Your task to perform on an android device: snooze an email in the gmail app Image 0: 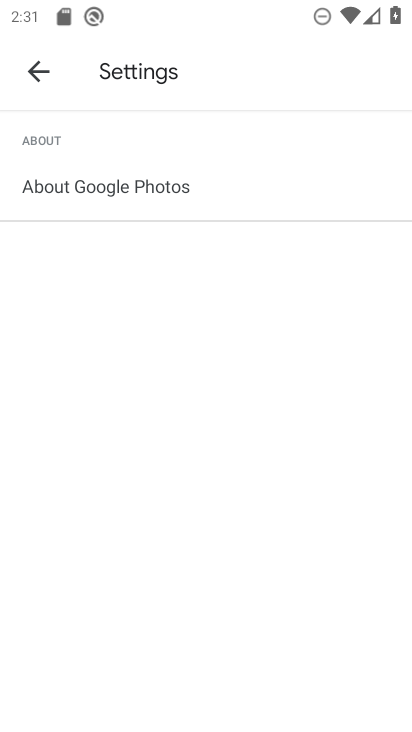
Step 0: press home button
Your task to perform on an android device: snooze an email in the gmail app Image 1: 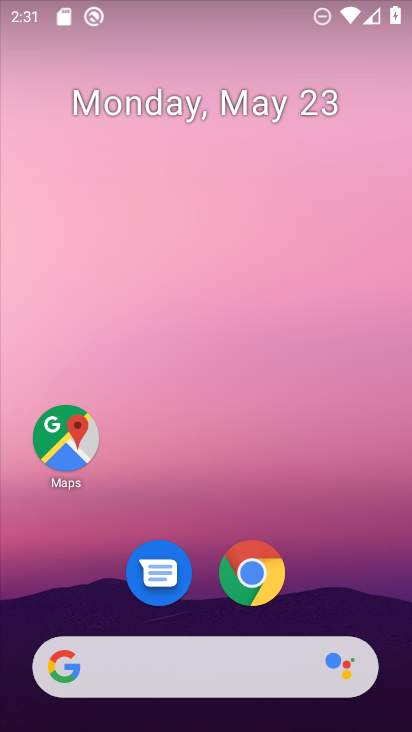
Step 1: drag from (322, 581) to (323, 130)
Your task to perform on an android device: snooze an email in the gmail app Image 2: 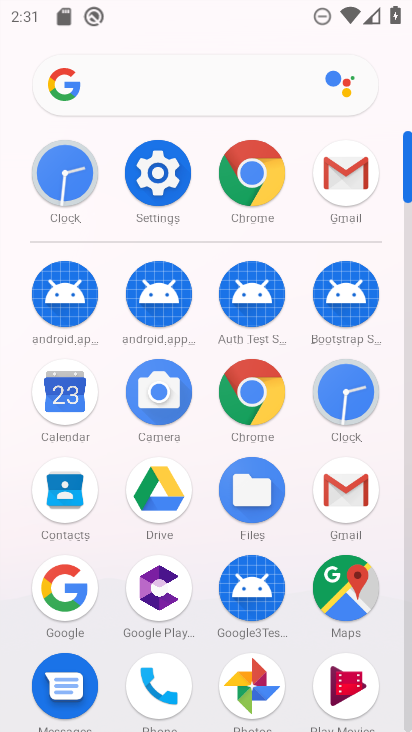
Step 2: click (337, 189)
Your task to perform on an android device: snooze an email in the gmail app Image 3: 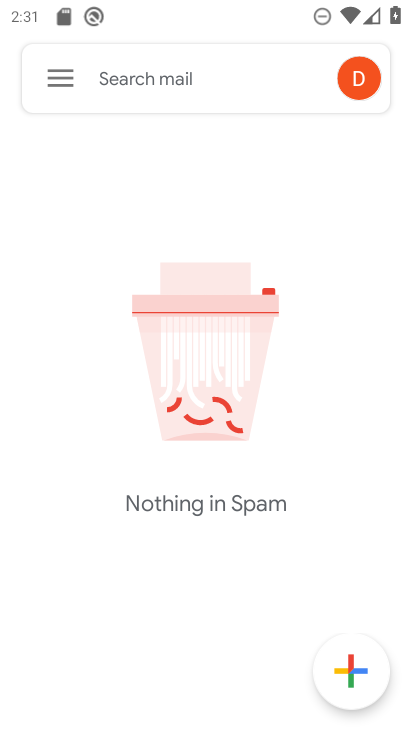
Step 3: click (72, 76)
Your task to perform on an android device: snooze an email in the gmail app Image 4: 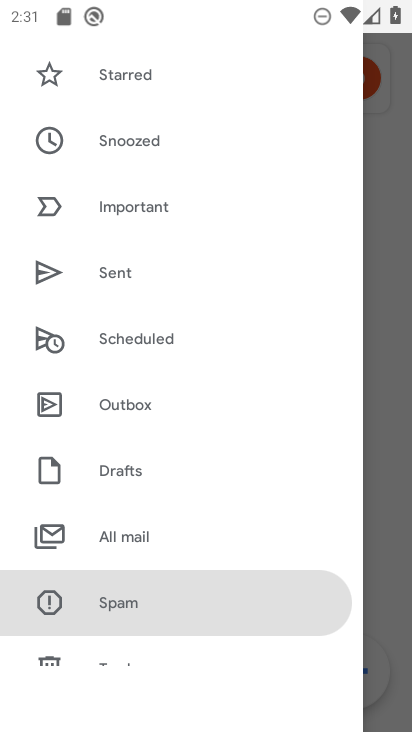
Step 4: drag from (115, 352) to (125, 673)
Your task to perform on an android device: snooze an email in the gmail app Image 5: 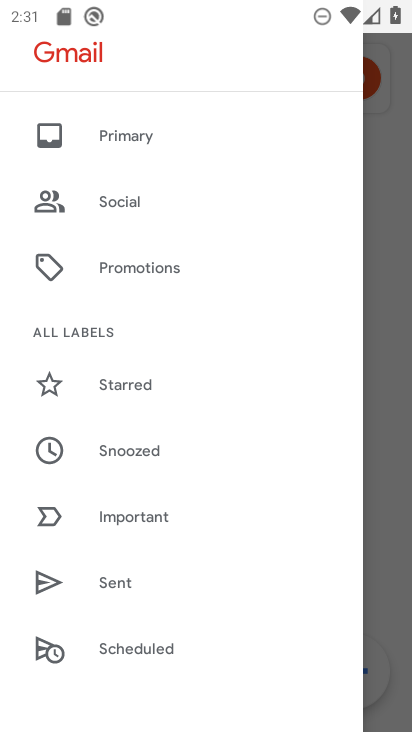
Step 5: drag from (113, 523) to (237, 227)
Your task to perform on an android device: snooze an email in the gmail app Image 6: 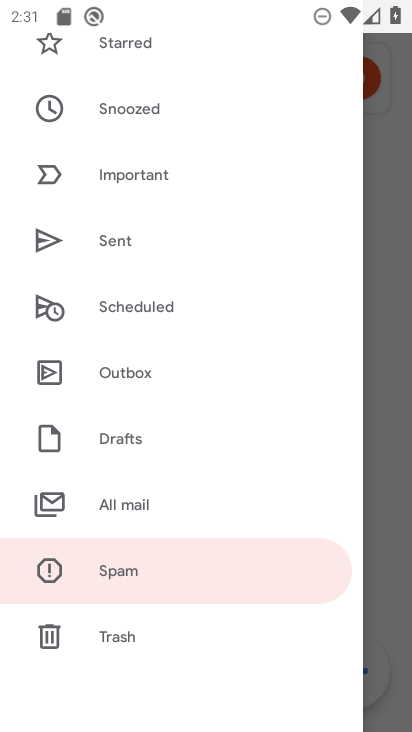
Step 6: click (135, 495)
Your task to perform on an android device: snooze an email in the gmail app Image 7: 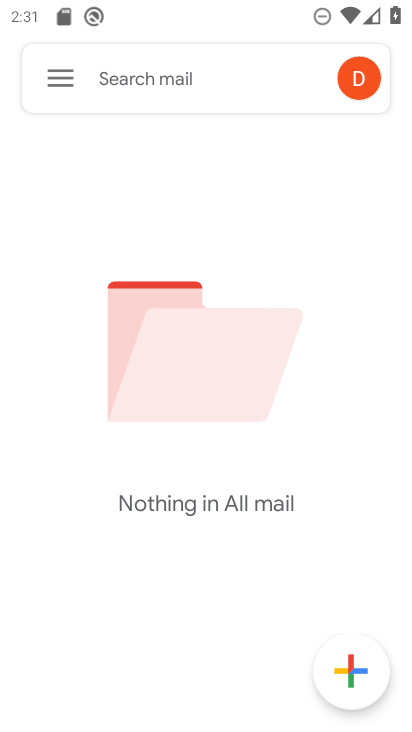
Step 7: task complete